Your task to perform on an android device: turn vacation reply on in the gmail app Image 0: 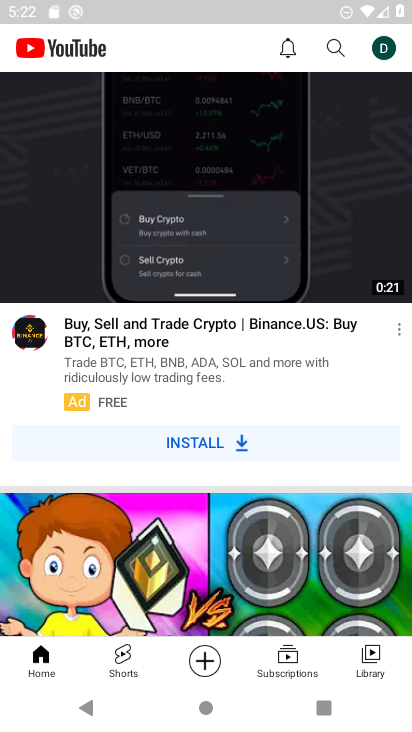
Step 0: press back button
Your task to perform on an android device: turn vacation reply on in the gmail app Image 1: 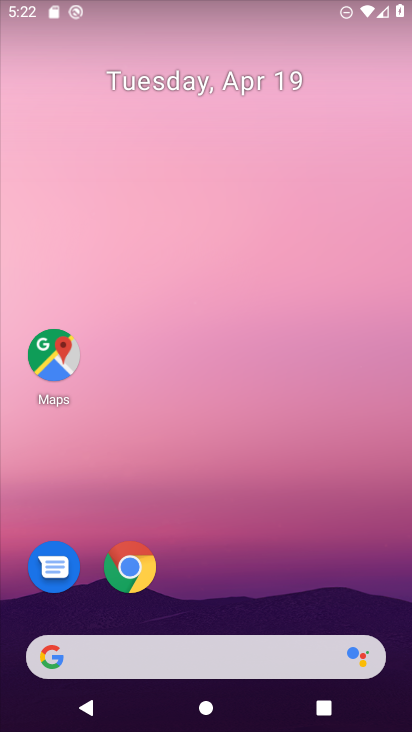
Step 1: drag from (285, 608) to (256, 44)
Your task to perform on an android device: turn vacation reply on in the gmail app Image 2: 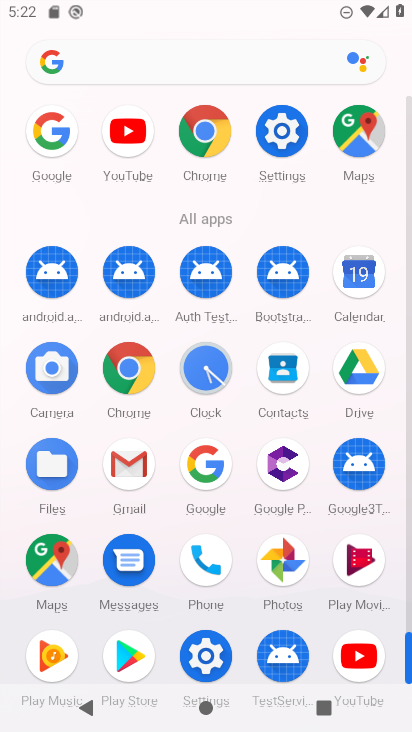
Step 2: click (131, 456)
Your task to perform on an android device: turn vacation reply on in the gmail app Image 3: 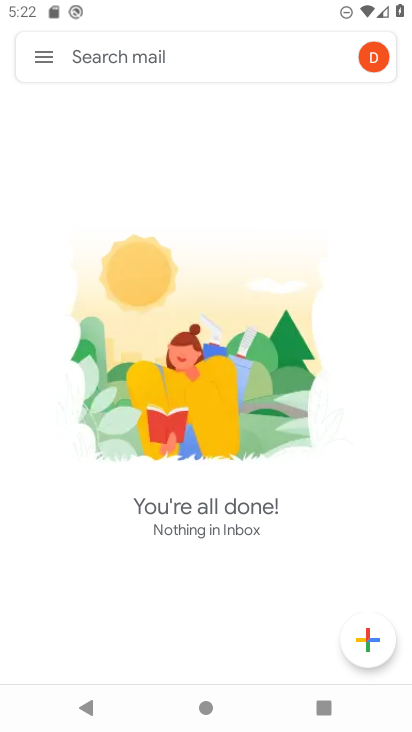
Step 3: click (61, 46)
Your task to perform on an android device: turn vacation reply on in the gmail app Image 4: 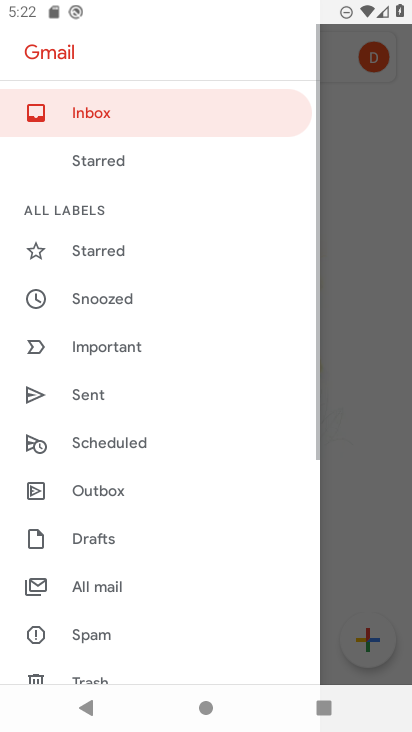
Step 4: drag from (106, 627) to (166, 173)
Your task to perform on an android device: turn vacation reply on in the gmail app Image 5: 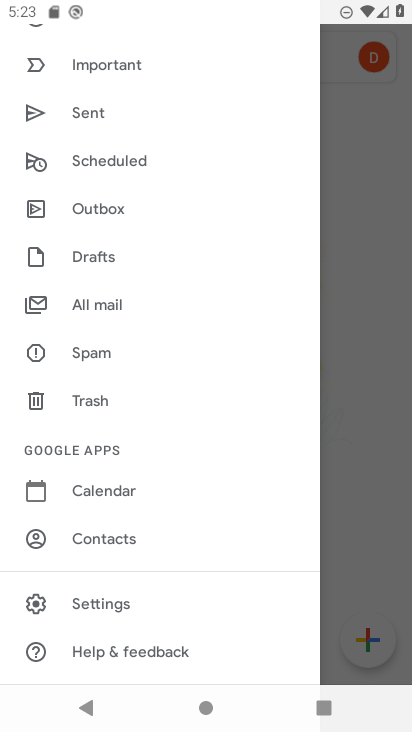
Step 5: click (120, 600)
Your task to perform on an android device: turn vacation reply on in the gmail app Image 6: 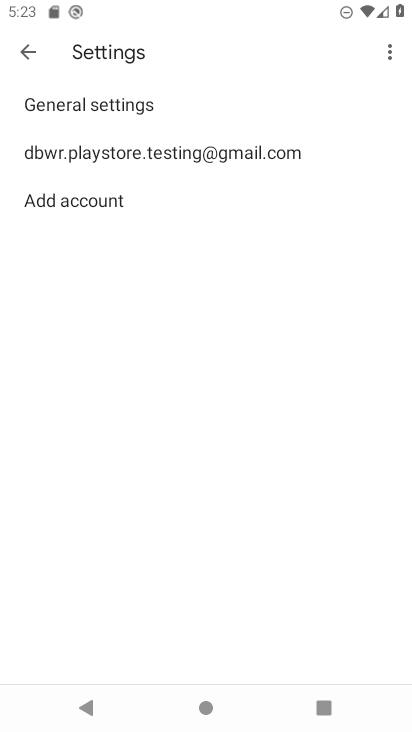
Step 6: click (189, 151)
Your task to perform on an android device: turn vacation reply on in the gmail app Image 7: 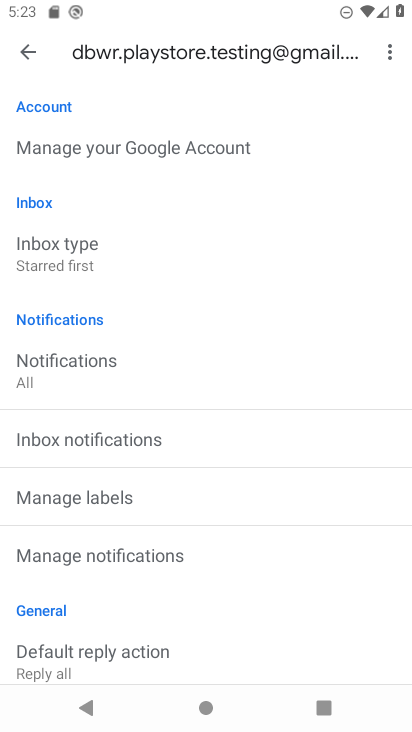
Step 7: drag from (246, 556) to (253, 147)
Your task to perform on an android device: turn vacation reply on in the gmail app Image 8: 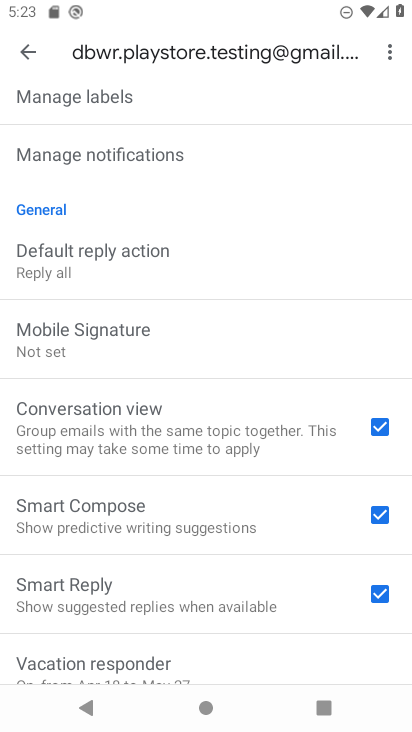
Step 8: drag from (192, 525) to (247, 134)
Your task to perform on an android device: turn vacation reply on in the gmail app Image 9: 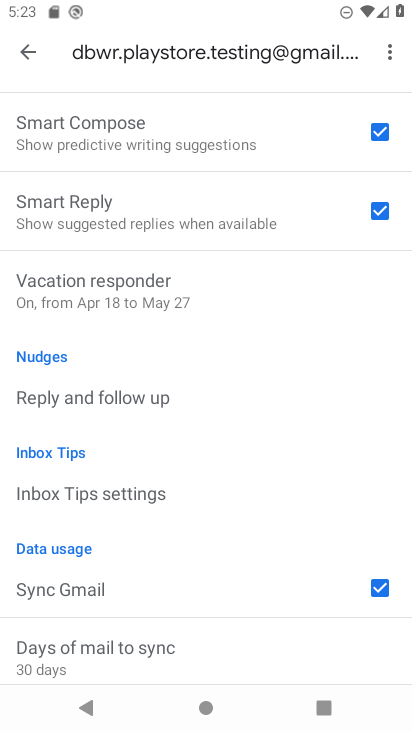
Step 9: click (183, 282)
Your task to perform on an android device: turn vacation reply on in the gmail app Image 10: 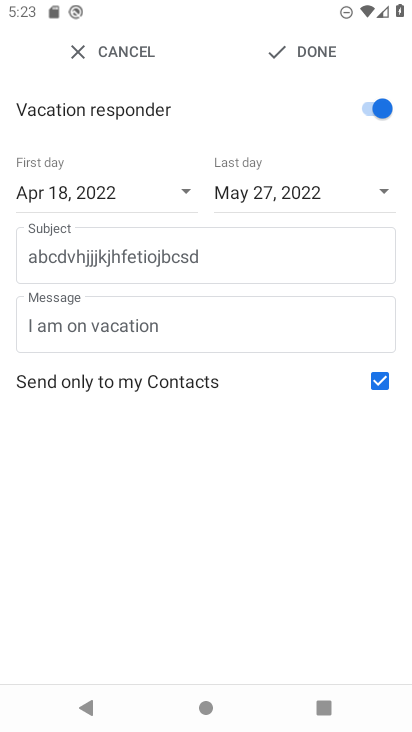
Step 10: click (333, 44)
Your task to perform on an android device: turn vacation reply on in the gmail app Image 11: 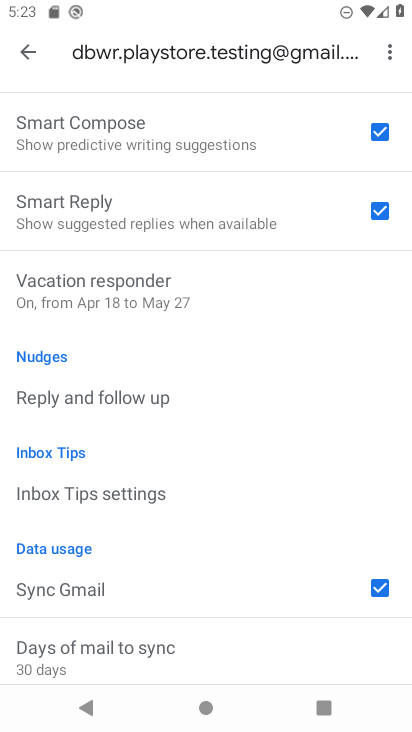
Step 11: task complete